Your task to perform on an android device: Open internet settings Image 0: 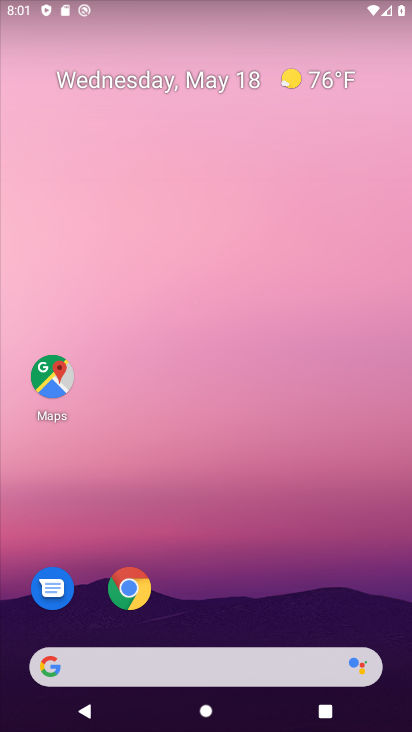
Step 0: drag from (266, 594) to (295, 159)
Your task to perform on an android device: Open internet settings Image 1: 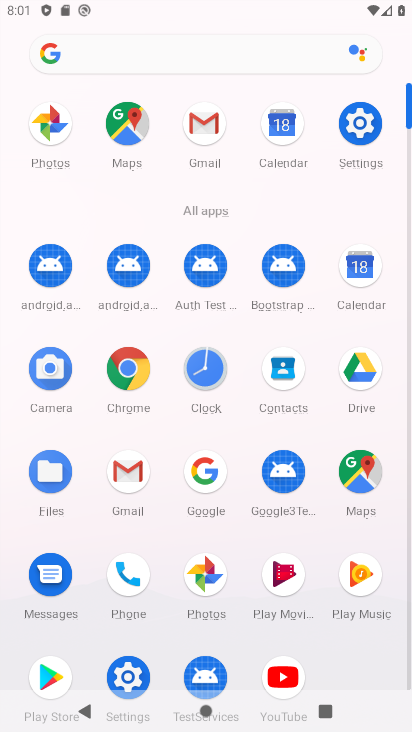
Step 1: click (360, 165)
Your task to perform on an android device: Open internet settings Image 2: 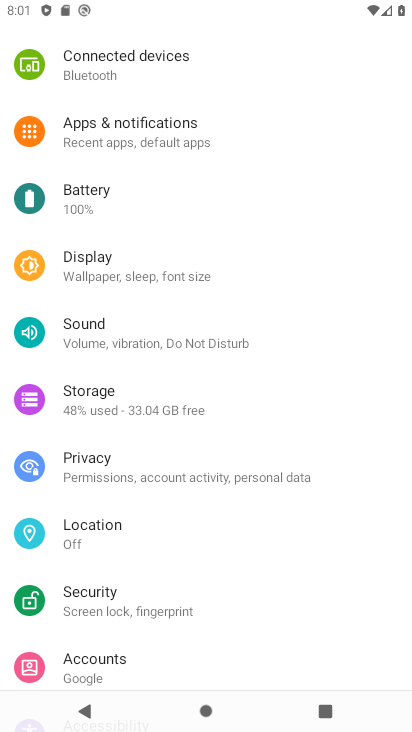
Step 2: drag from (149, 141) to (159, 626)
Your task to perform on an android device: Open internet settings Image 3: 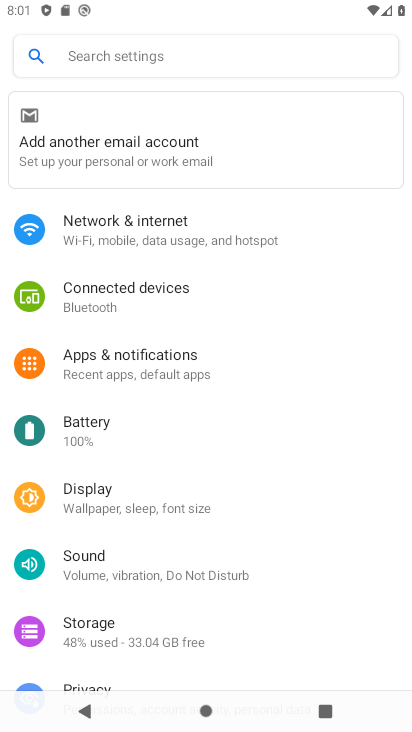
Step 3: click (175, 245)
Your task to perform on an android device: Open internet settings Image 4: 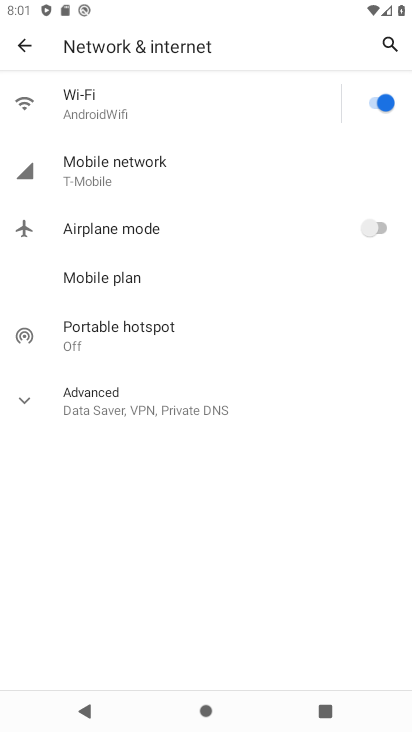
Step 4: task complete